Your task to perform on an android device: When is my next appointment? Image 0: 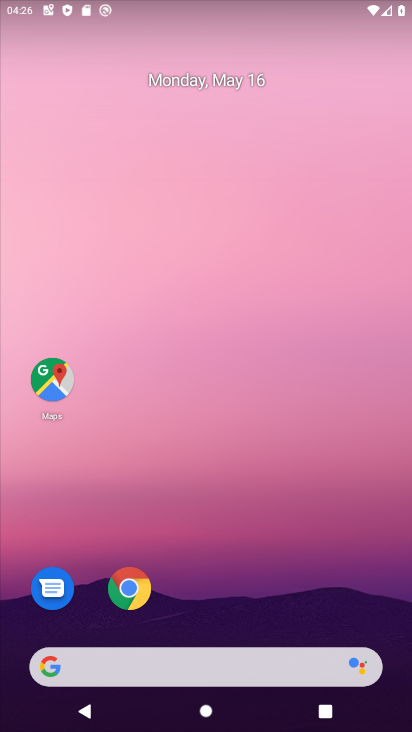
Step 0: drag from (300, 543) to (234, 0)
Your task to perform on an android device: When is my next appointment? Image 1: 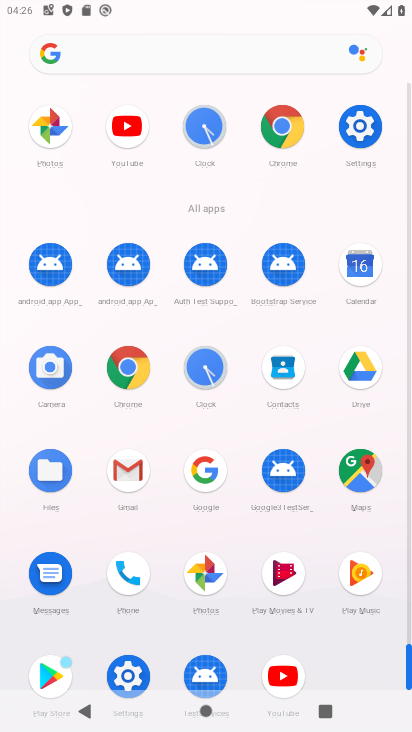
Step 1: drag from (9, 532) to (14, 192)
Your task to perform on an android device: When is my next appointment? Image 2: 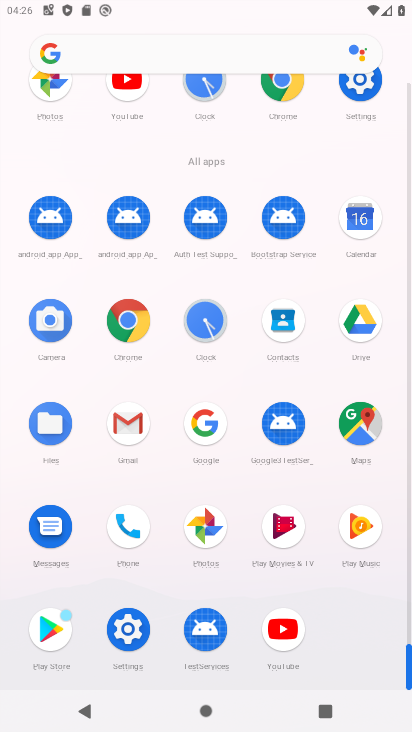
Step 2: drag from (3, 572) to (22, 219)
Your task to perform on an android device: When is my next appointment? Image 3: 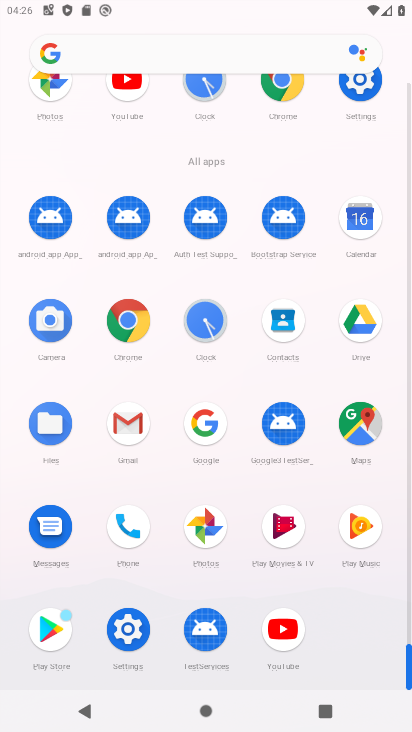
Step 3: click (367, 211)
Your task to perform on an android device: When is my next appointment? Image 4: 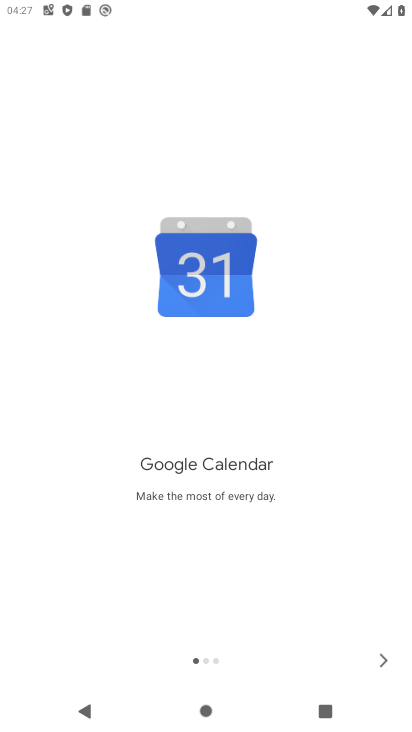
Step 4: click (384, 657)
Your task to perform on an android device: When is my next appointment? Image 5: 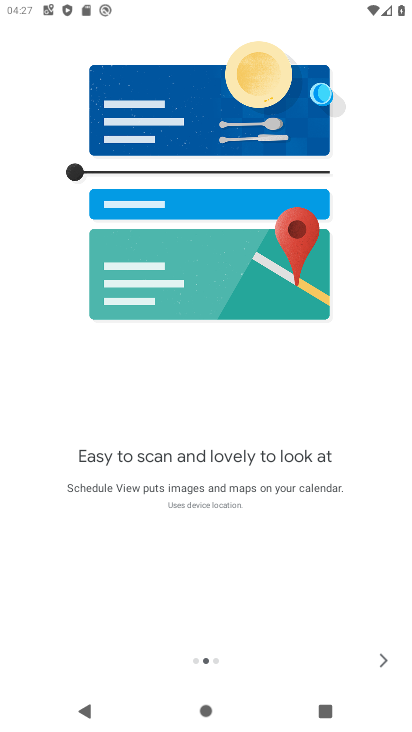
Step 5: click (383, 660)
Your task to perform on an android device: When is my next appointment? Image 6: 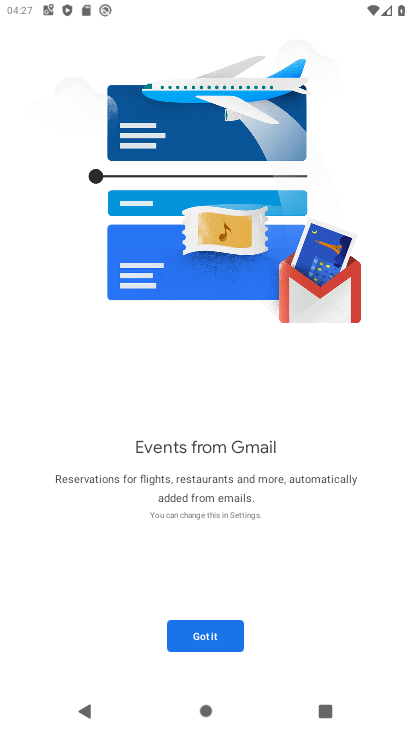
Step 6: click (204, 644)
Your task to perform on an android device: When is my next appointment? Image 7: 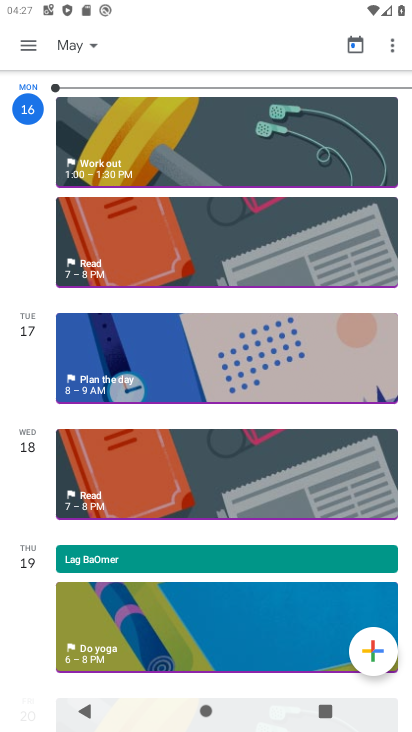
Step 7: click (31, 48)
Your task to perform on an android device: When is my next appointment? Image 8: 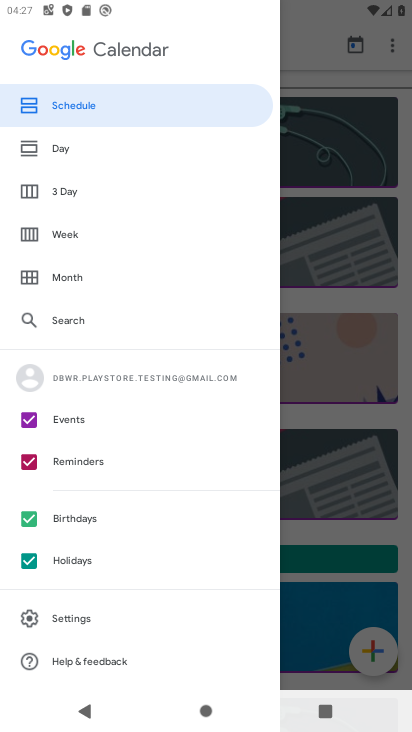
Step 8: click (99, 99)
Your task to perform on an android device: When is my next appointment? Image 9: 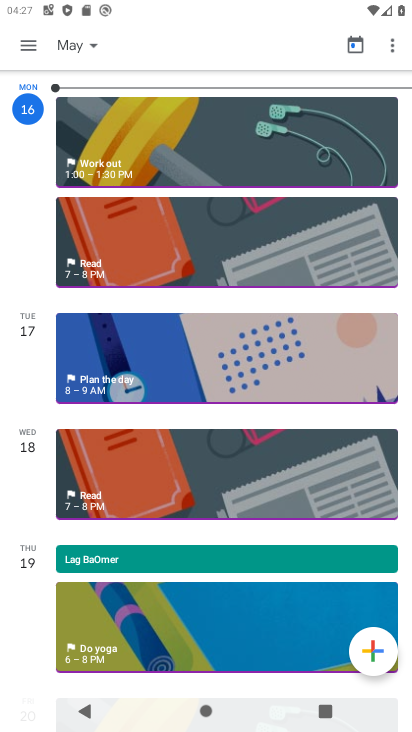
Step 9: task complete